Your task to perform on an android device: turn off airplane mode Image 0: 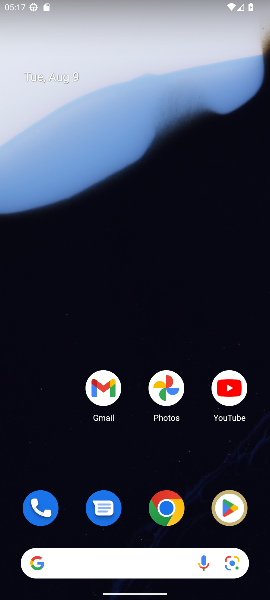
Step 0: drag from (122, 465) to (181, 47)
Your task to perform on an android device: turn off airplane mode Image 1: 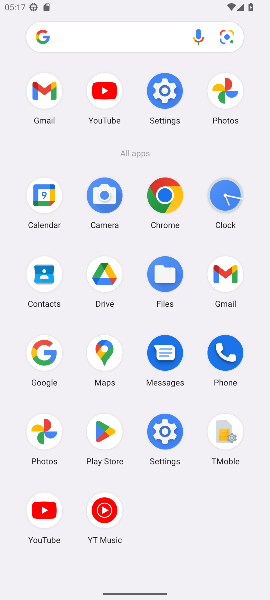
Step 1: click (160, 94)
Your task to perform on an android device: turn off airplane mode Image 2: 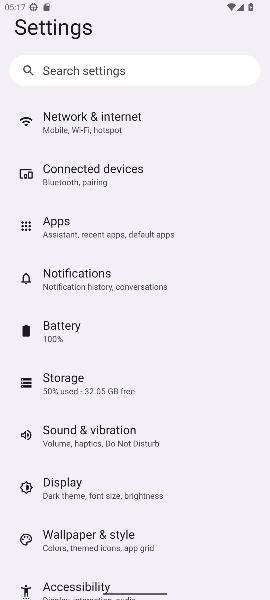
Step 2: click (141, 112)
Your task to perform on an android device: turn off airplane mode Image 3: 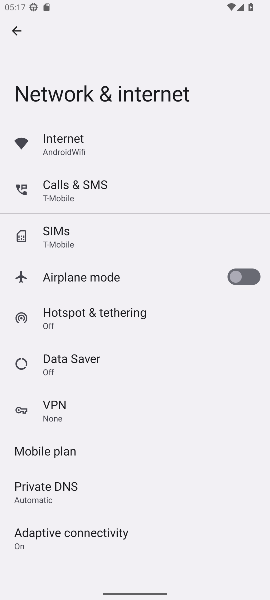
Step 3: task complete